Your task to perform on an android device: Open Wikipedia Image 0: 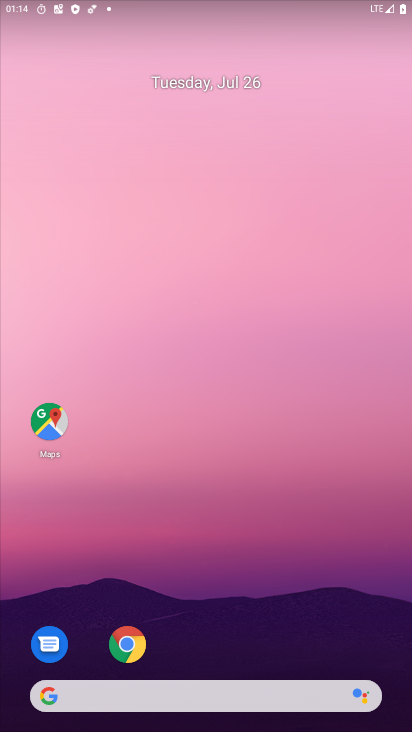
Step 0: click (134, 649)
Your task to perform on an android device: Open Wikipedia Image 1: 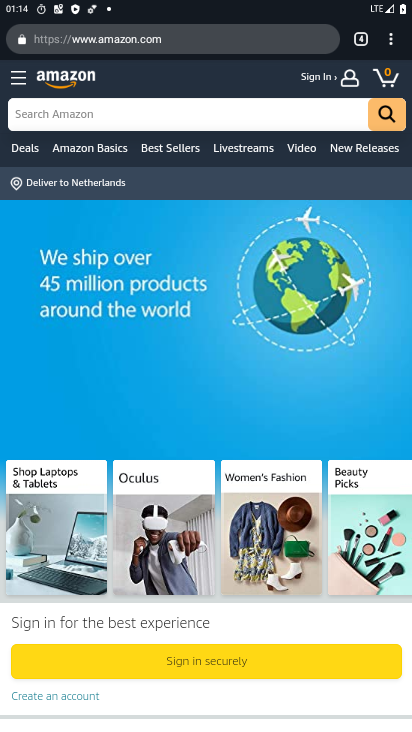
Step 1: click (112, 43)
Your task to perform on an android device: Open Wikipedia Image 2: 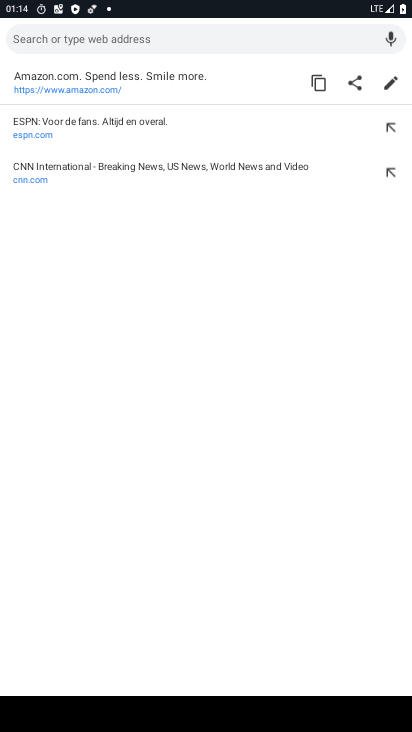
Step 2: type "wikipedia"
Your task to perform on an android device: Open Wikipedia Image 3: 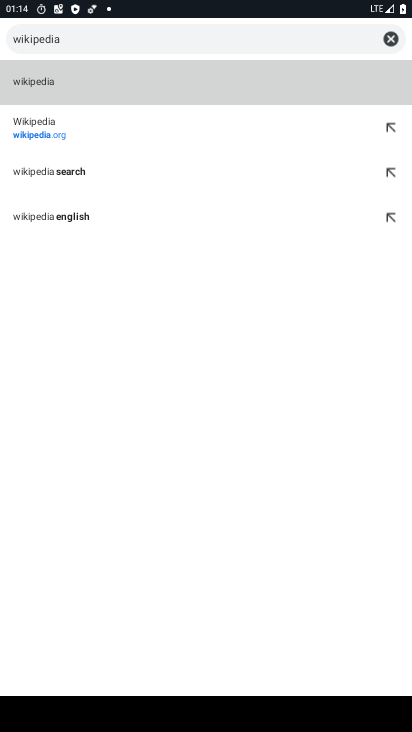
Step 3: click (34, 133)
Your task to perform on an android device: Open Wikipedia Image 4: 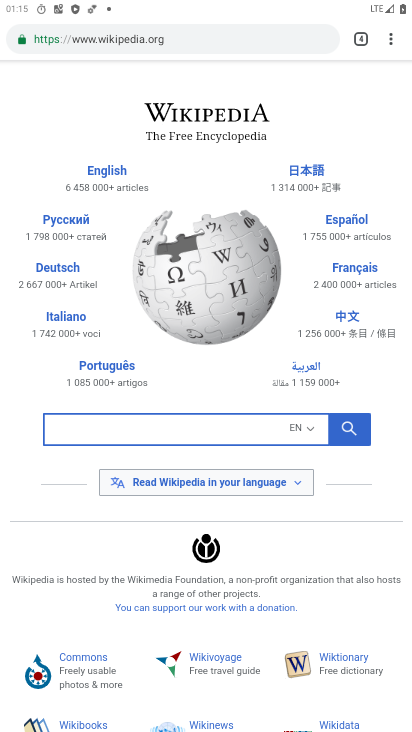
Step 4: task complete